Your task to perform on an android device: What's the weather going to be tomorrow? Image 0: 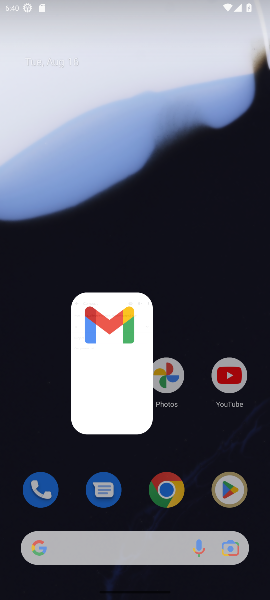
Step 0: press home button
Your task to perform on an android device: What's the weather going to be tomorrow? Image 1: 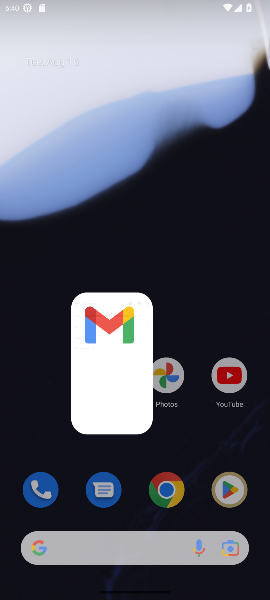
Step 1: click (60, 83)
Your task to perform on an android device: What's the weather going to be tomorrow? Image 2: 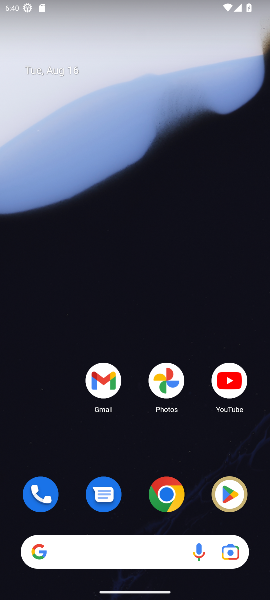
Step 2: click (92, 550)
Your task to perform on an android device: What's the weather going to be tomorrow? Image 3: 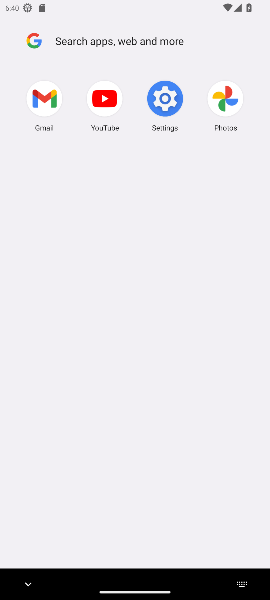
Step 3: type "What's the weather going to be tomorrow?"
Your task to perform on an android device: What's the weather going to be tomorrow? Image 4: 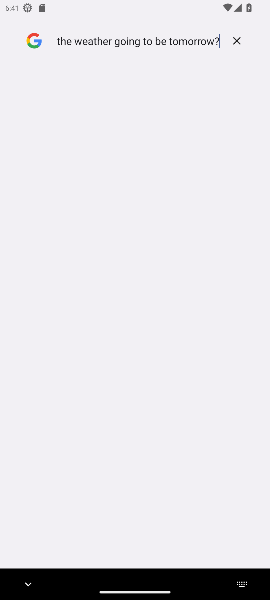
Step 4: press enter
Your task to perform on an android device: What's the weather going to be tomorrow? Image 5: 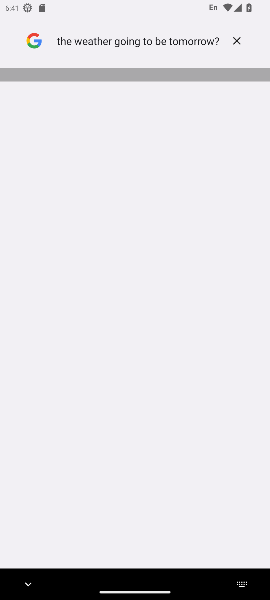
Step 5: task complete